Your task to perform on an android device: turn off improve location accuracy Image 0: 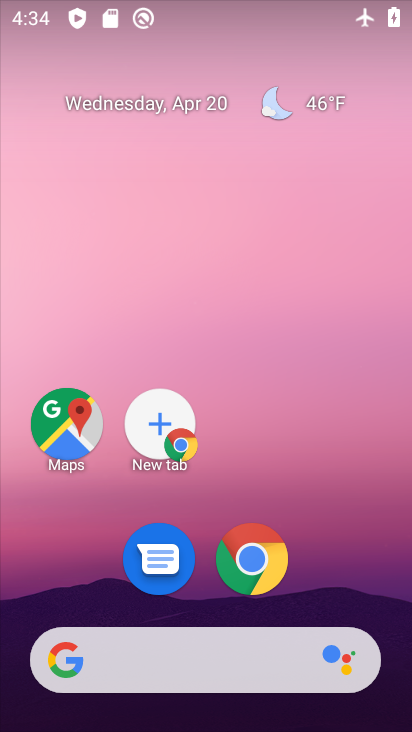
Step 0: drag from (336, 571) to (321, 156)
Your task to perform on an android device: turn off improve location accuracy Image 1: 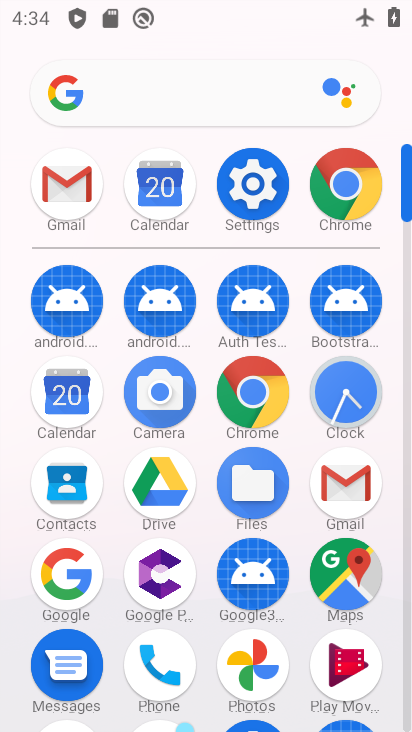
Step 1: click (262, 176)
Your task to perform on an android device: turn off improve location accuracy Image 2: 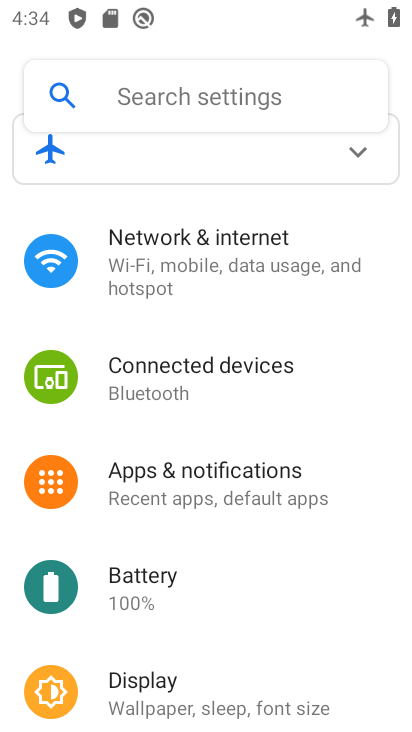
Step 2: drag from (237, 627) to (270, 217)
Your task to perform on an android device: turn off improve location accuracy Image 3: 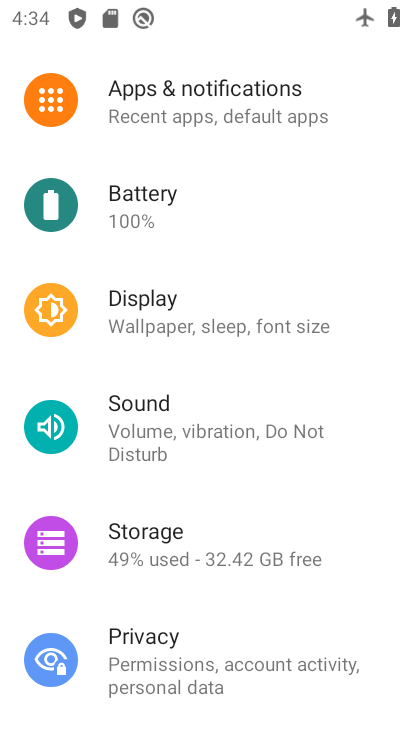
Step 3: drag from (252, 609) to (251, 124)
Your task to perform on an android device: turn off improve location accuracy Image 4: 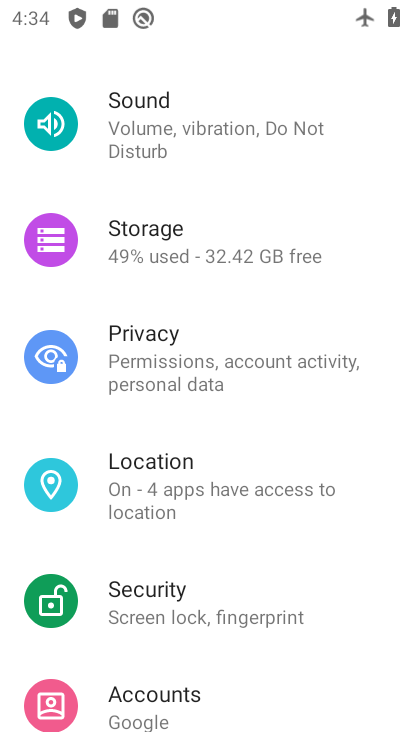
Step 4: click (244, 503)
Your task to perform on an android device: turn off improve location accuracy Image 5: 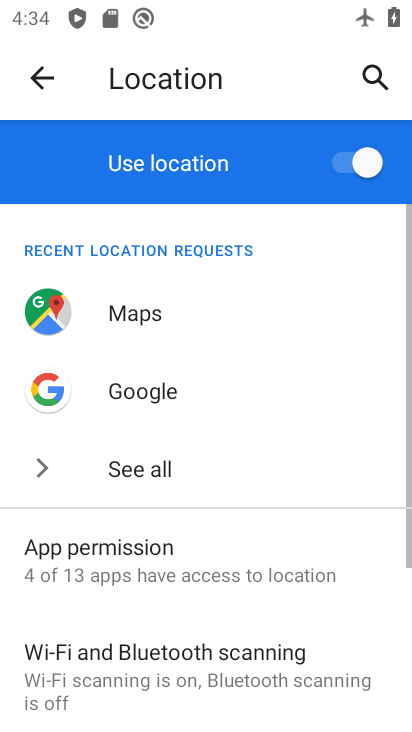
Step 5: drag from (241, 591) to (256, 221)
Your task to perform on an android device: turn off improve location accuracy Image 6: 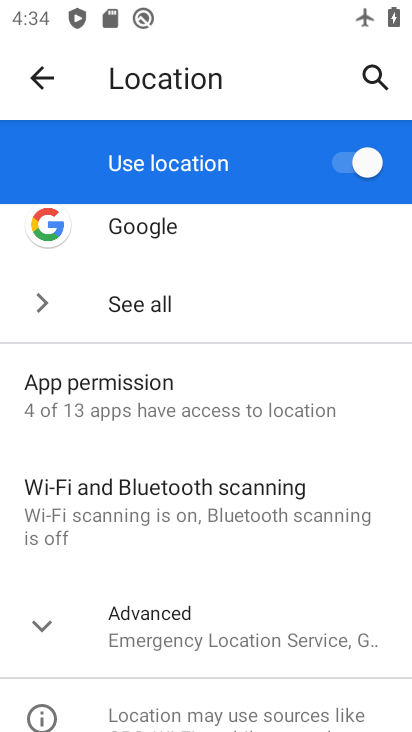
Step 6: click (213, 610)
Your task to perform on an android device: turn off improve location accuracy Image 7: 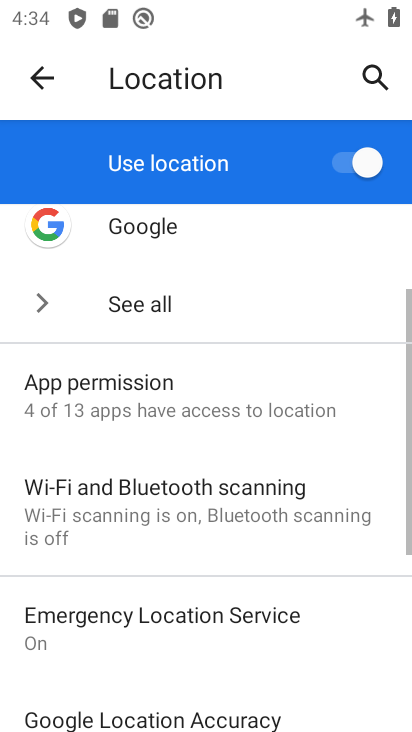
Step 7: drag from (265, 635) to (272, 362)
Your task to perform on an android device: turn off improve location accuracy Image 8: 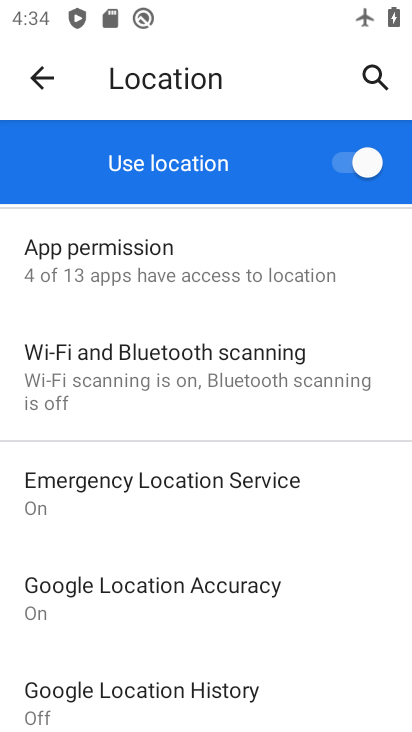
Step 8: click (275, 595)
Your task to perform on an android device: turn off improve location accuracy Image 9: 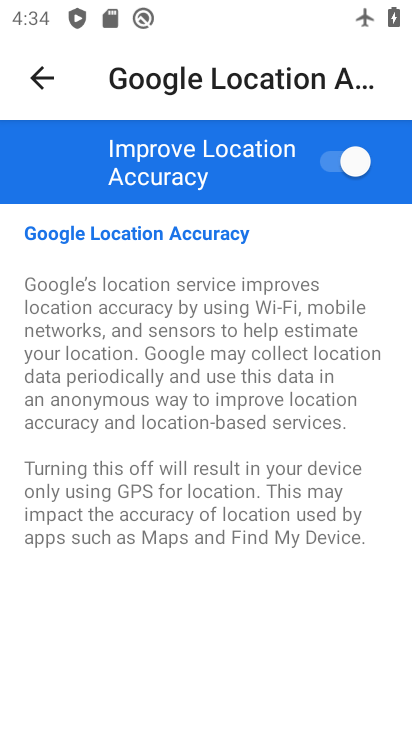
Step 9: click (333, 177)
Your task to perform on an android device: turn off improve location accuracy Image 10: 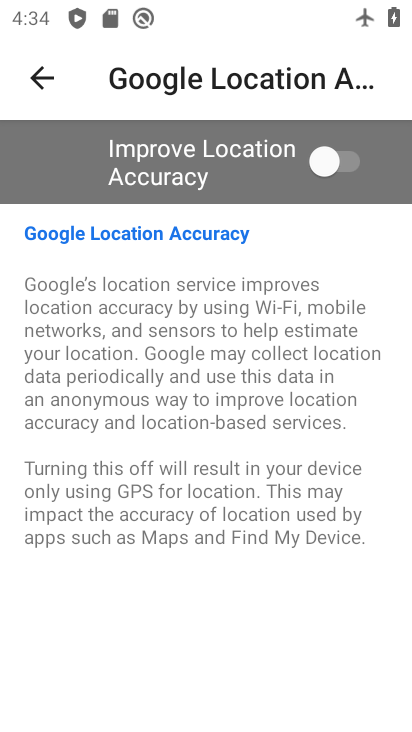
Step 10: task complete